Your task to perform on an android device: Open calendar and show me the first week of next month Image 0: 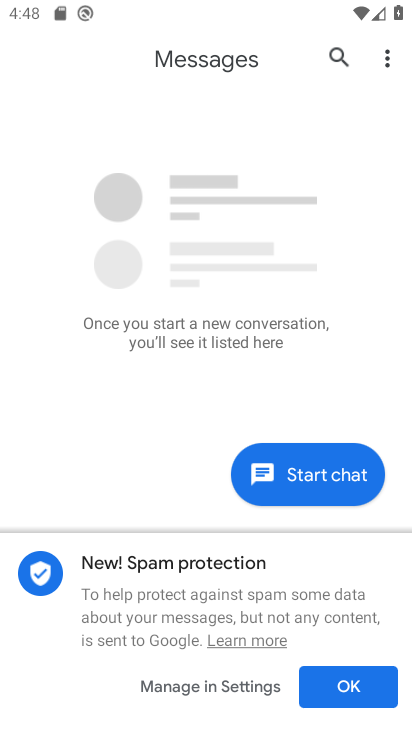
Step 0: press home button
Your task to perform on an android device: Open calendar and show me the first week of next month Image 1: 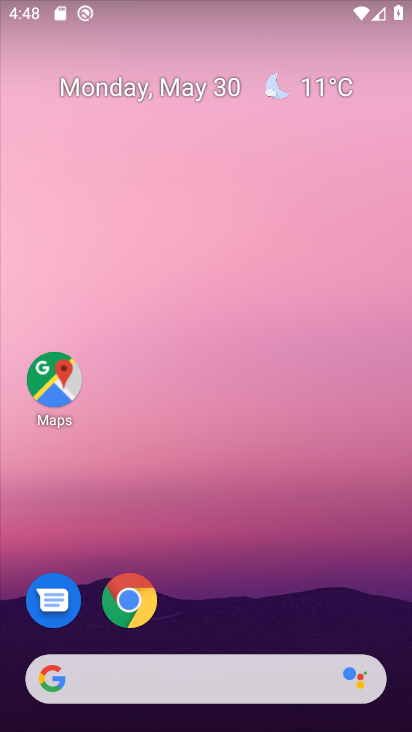
Step 1: drag from (243, 579) to (252, 0)
Your task to perform on an android device: Open calendar and show me the first week of next month Image 2: 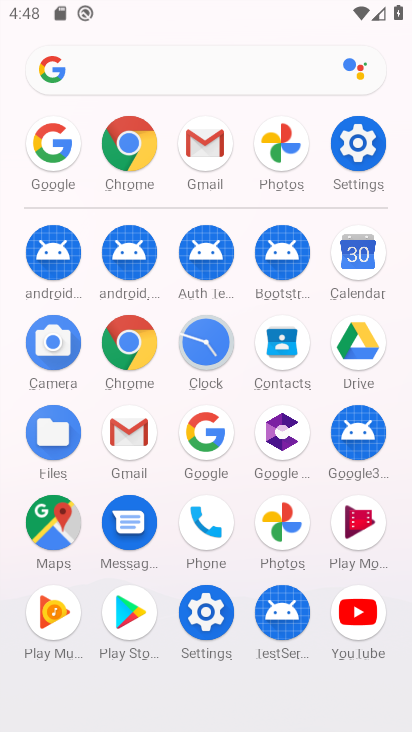
Step 2: click (356, 284)
Your task to perform on an android device: Open calendar and show me the first week of next month Image 3: 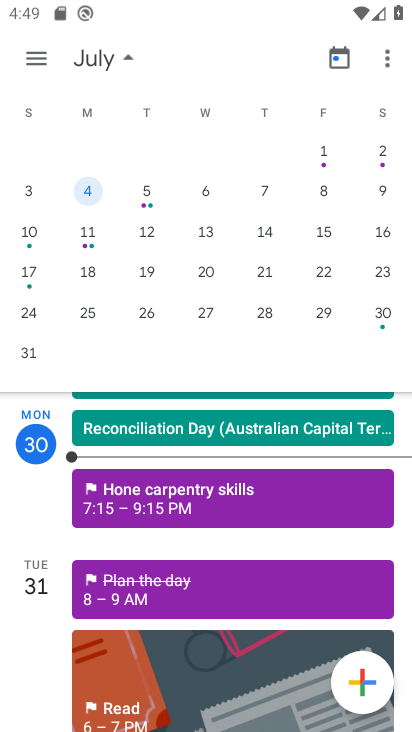
Step 3: click (148, 205)
Your task to perform on an android device: Open calendar and show me the first week of next month Image 4: 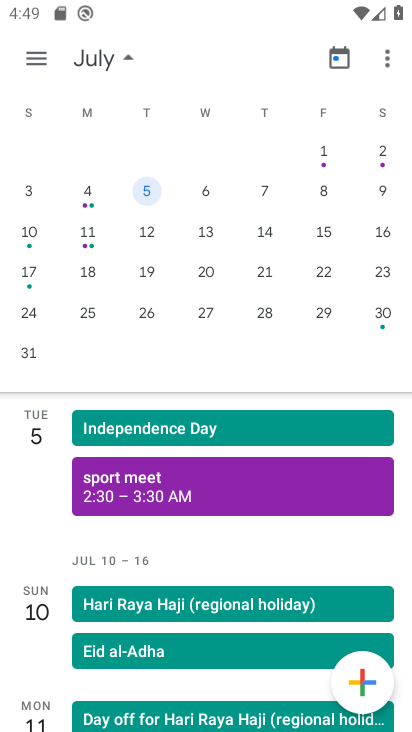
Step 4: task complete